Your task to perform on an android device: Go to Google Image 0: 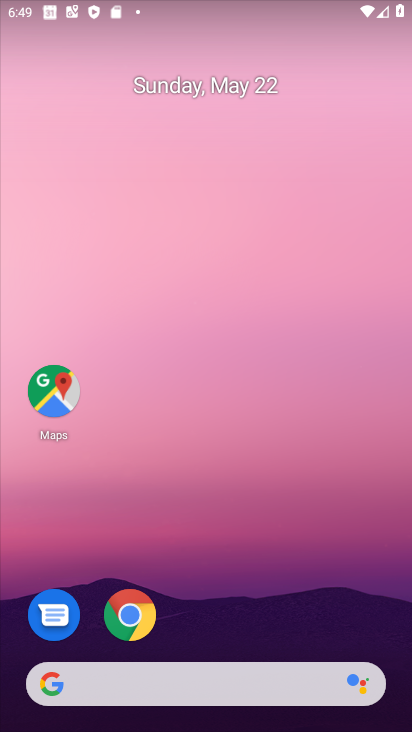
Step 0: click (56, 686)
Your task to perform on an android device: Go to Google Image 1: 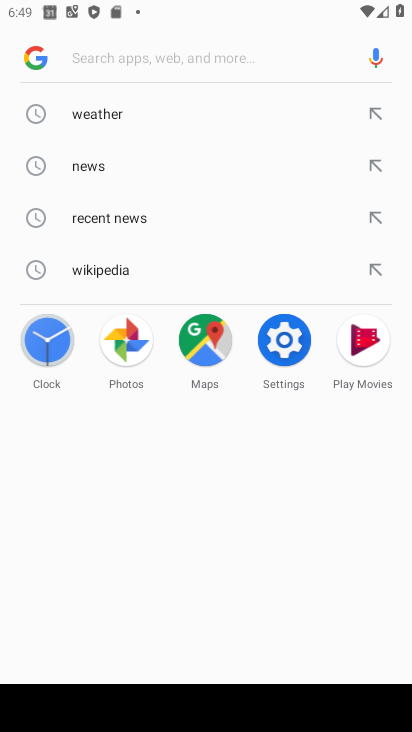
Step 1: click (40, 54)
Your task to perform on an android device: Go to Google Image 2: 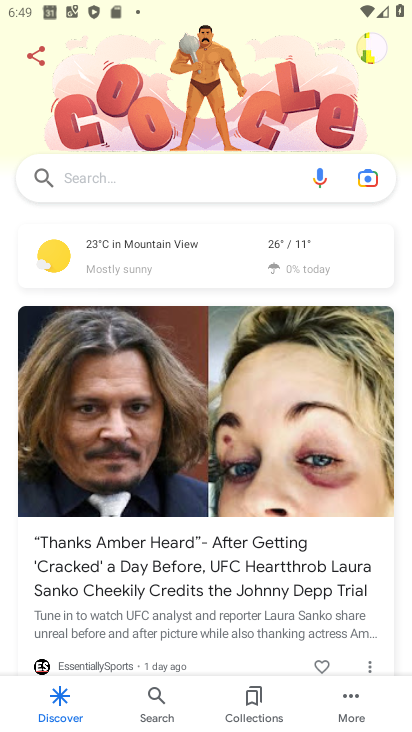
Step 2: task complete